Your task to perform on an android device: Go to wifi settings Image 0: 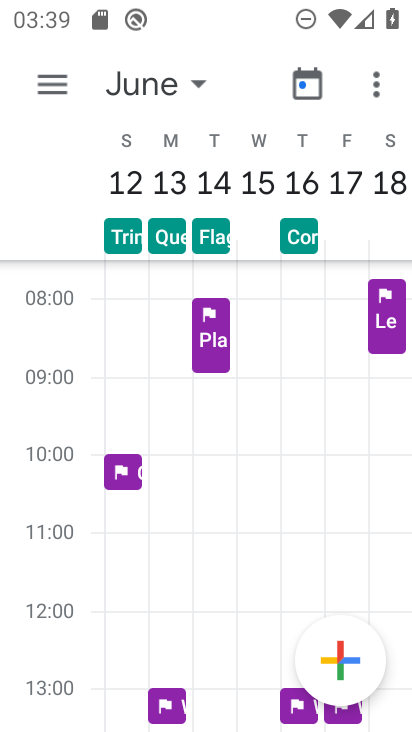
Step 0: press home button
Your task to perform on an android device: Go to wifi settings Image 1: 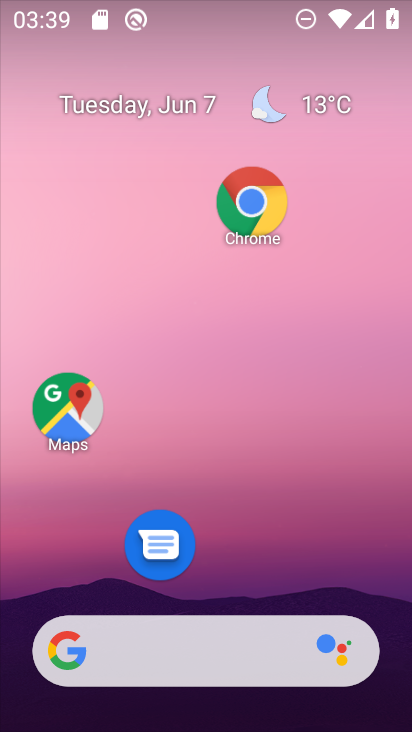
Step 1: drag from (289, 593) to (259, 113)
Your task to perform on an android device: Go to wifi settings Image 2: 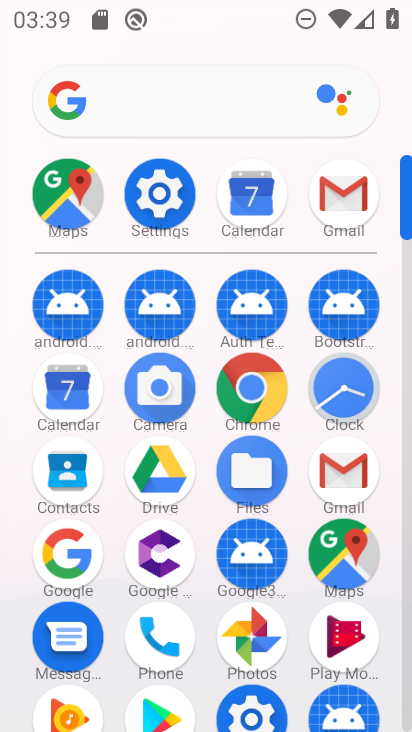
Step 2: click (161, 198)
Your task to perform on an android device: Go to wifi settings Image 3: 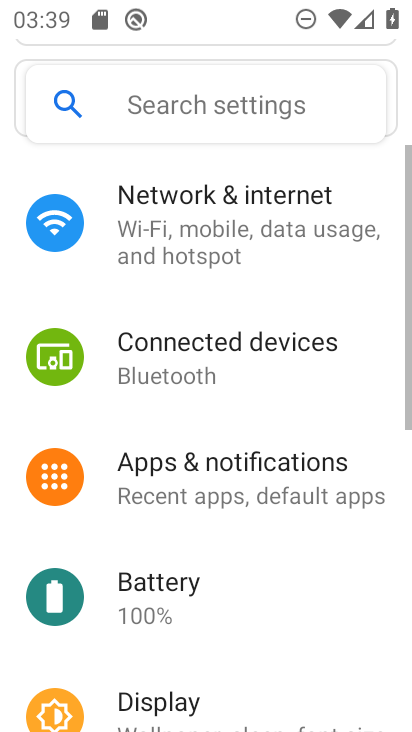
Step 3: drag from (188, 225) to (189, 480)
Your task to perform on an android device: Go to wifi settings Image 4: 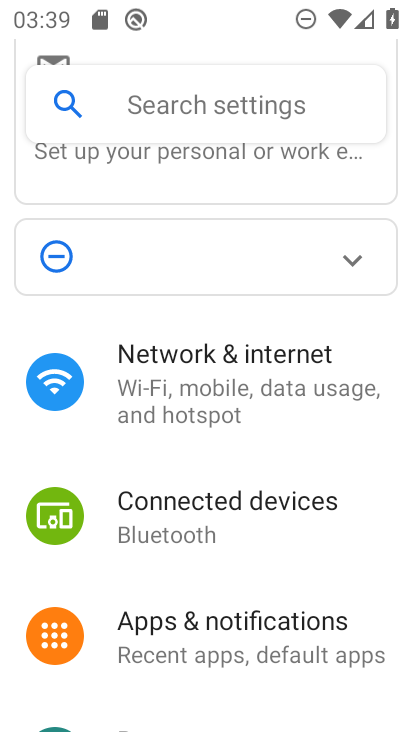
Step 4: click (239, 391)
Your task to perform on an android device: Go to wifi settings Image 5: 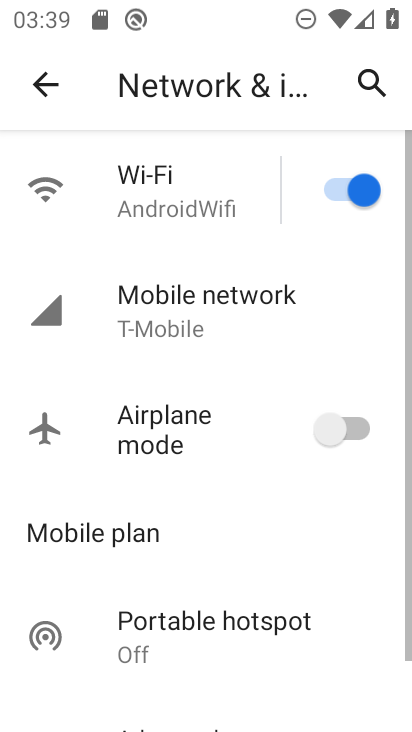
Step 5: click (125, 181)
Your task to perform on an android device: Go to wifi settings Image 6: 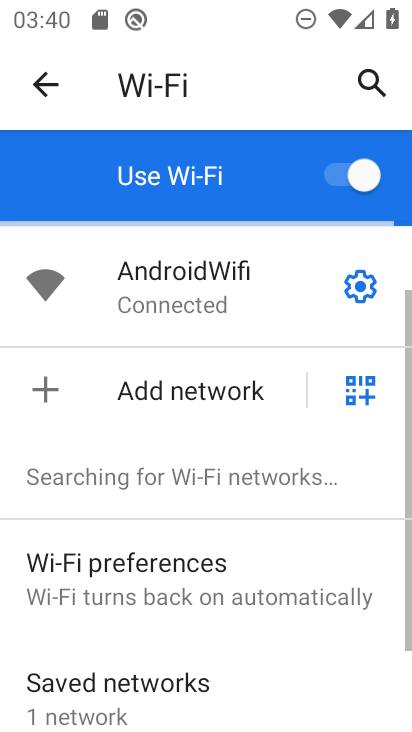
Step 6: task complete